Your task to perform on an android device: change notifications settings Image 0: 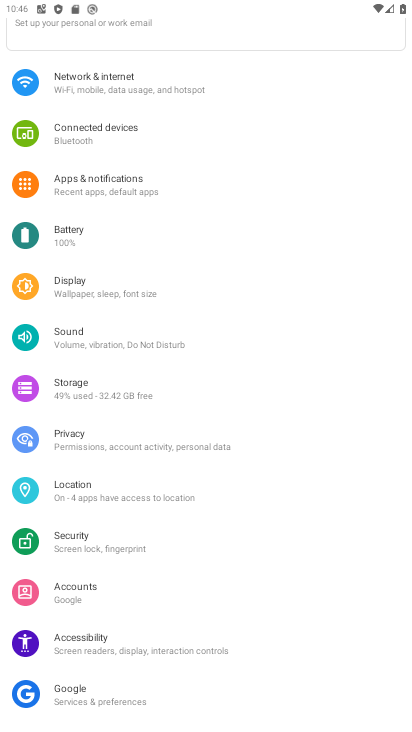
Step 0: press home button
Your task to perform on an android device: change notifications settings Image 1: 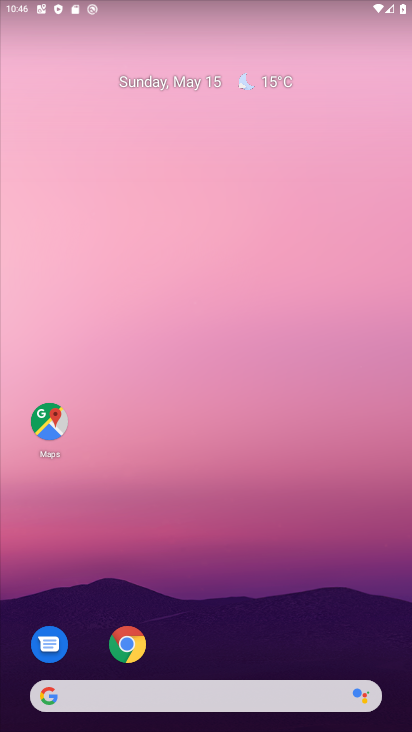
Step 1: drag from (326, 614) to (311, 210)
Your task to perform on an android device: change notifications settings Image 2: 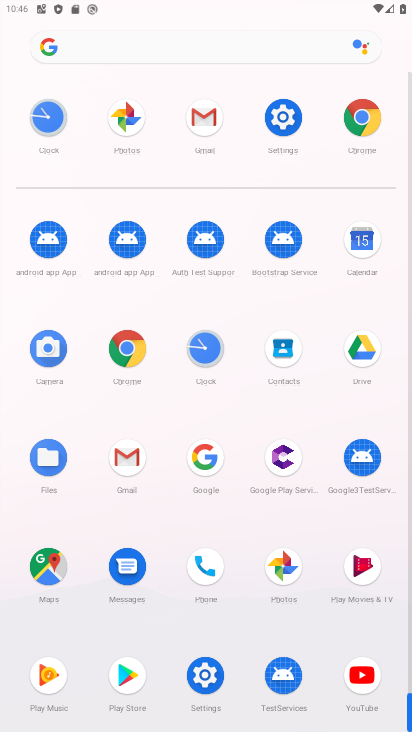
Step 2: click (211, 677)
Your task to perform on an android device: change notifications settings Image 3: 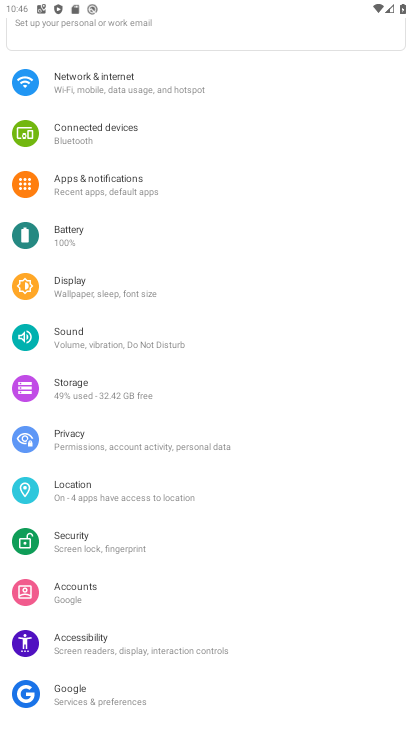
Step 3: click (137, 185)
Your task to perform on an android device: change notifications settings Image 4: 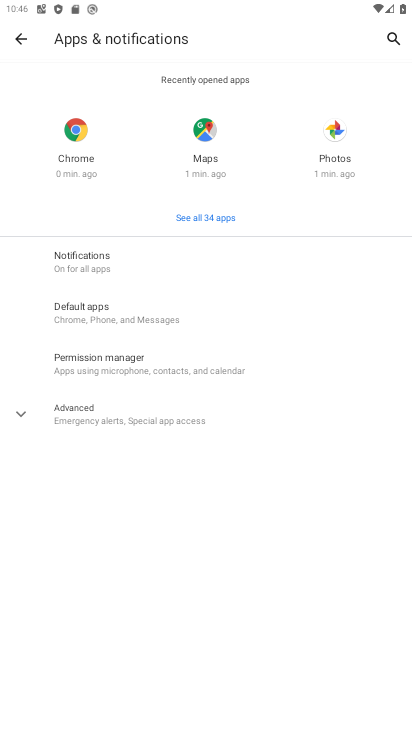
Step 4: click (91, 266)
Your task to perform on an android device: change notifications settings Image 5: 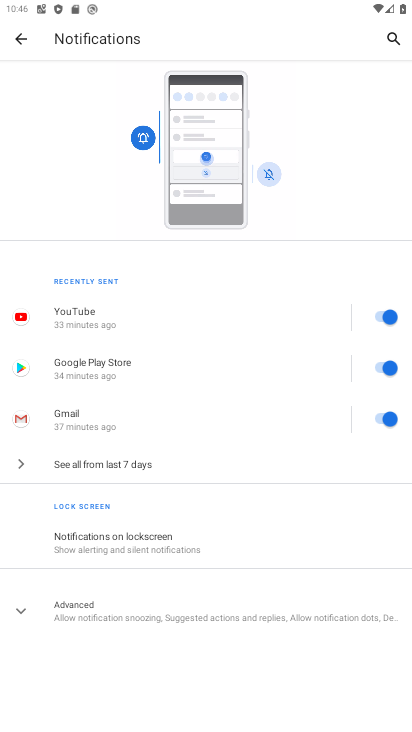
Step 5: task complete